Your task to perform on an android device: Add alienware aurora to the cart on amazon, then select checkout. Image 0: 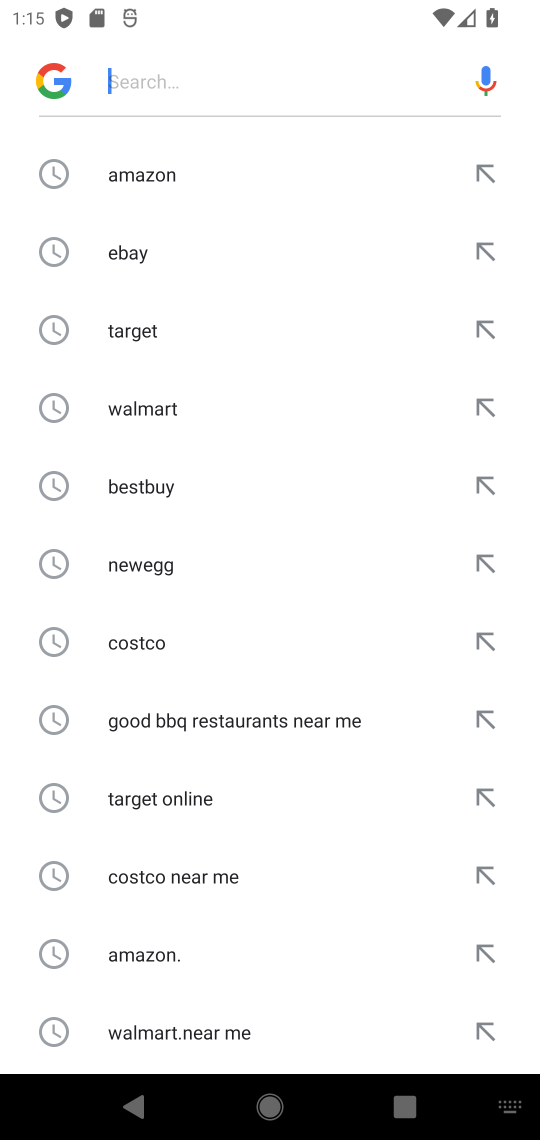
Step 0: click (125, 176)
Your task to perform on an android device: Add alienware aurora to the cart on amazon, then select checkout. Image 1: 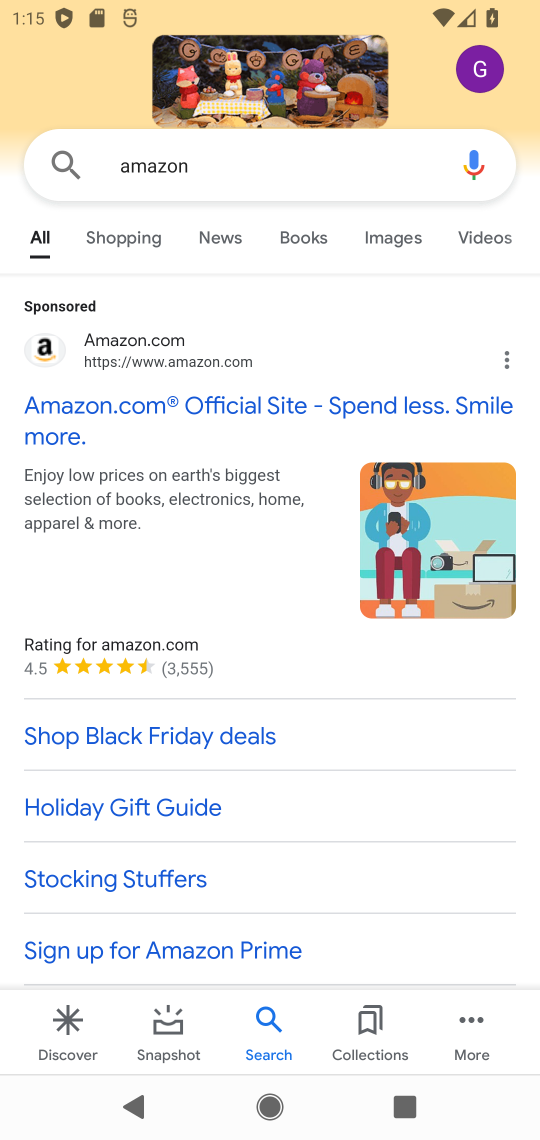
Step 1: drag from (110, 539) to (116, 288)
Your task to perform on an android device: Add alienware aurora to the cart on amazon, then select checkout. Image 2: 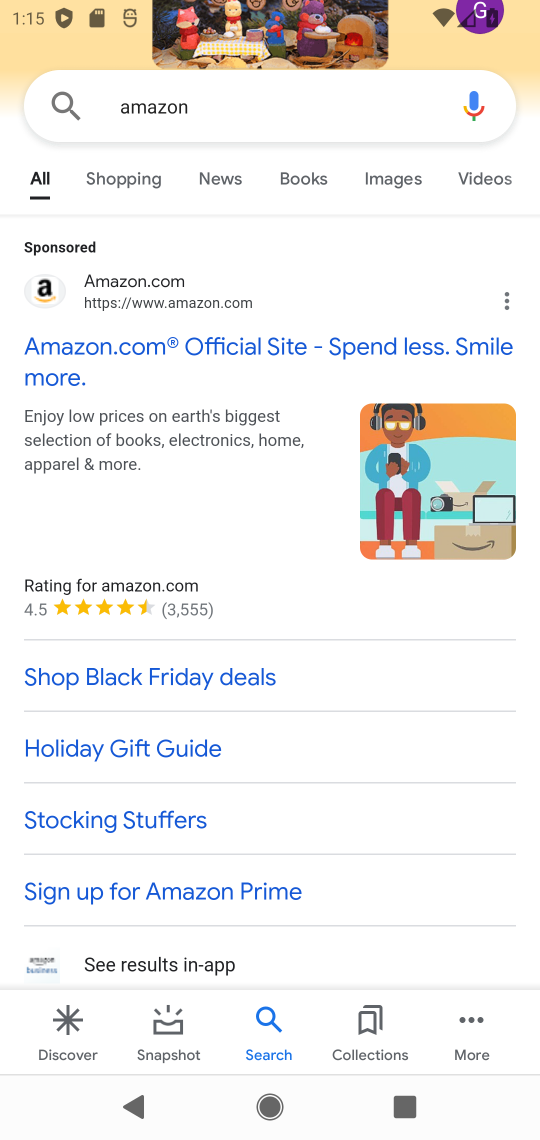
Step 2: drag from (119, 782) to (120, 465)
Your task to perform on an android device: Add alienware aurora to the cart on amazon, then select checkout. Image 3: 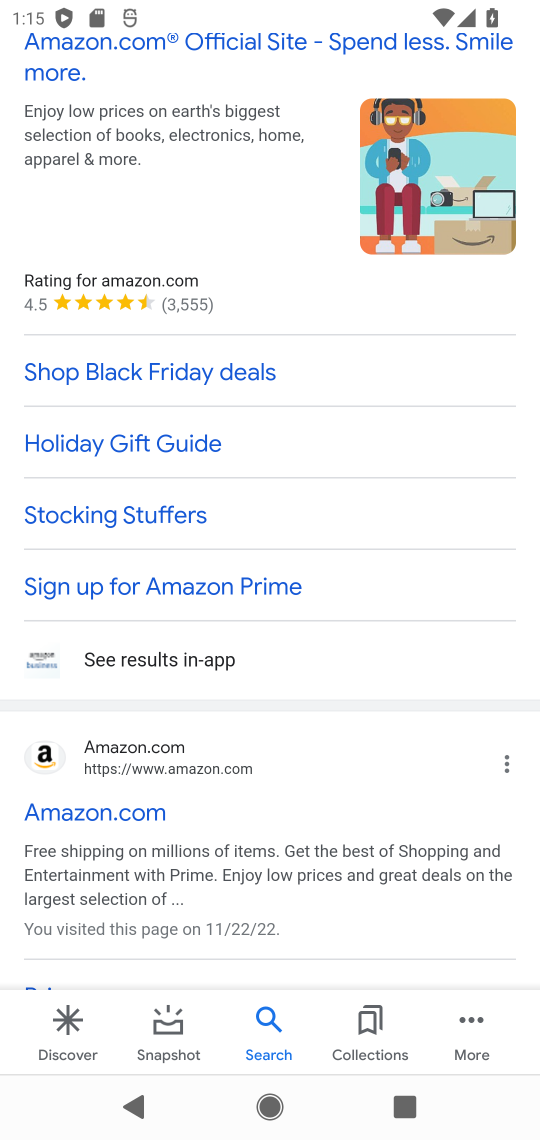
Step 3: click (55, 760)
Your task to perform on an android device: Add alienware aurora to the cart on amazon, then select checkout. Image 4: 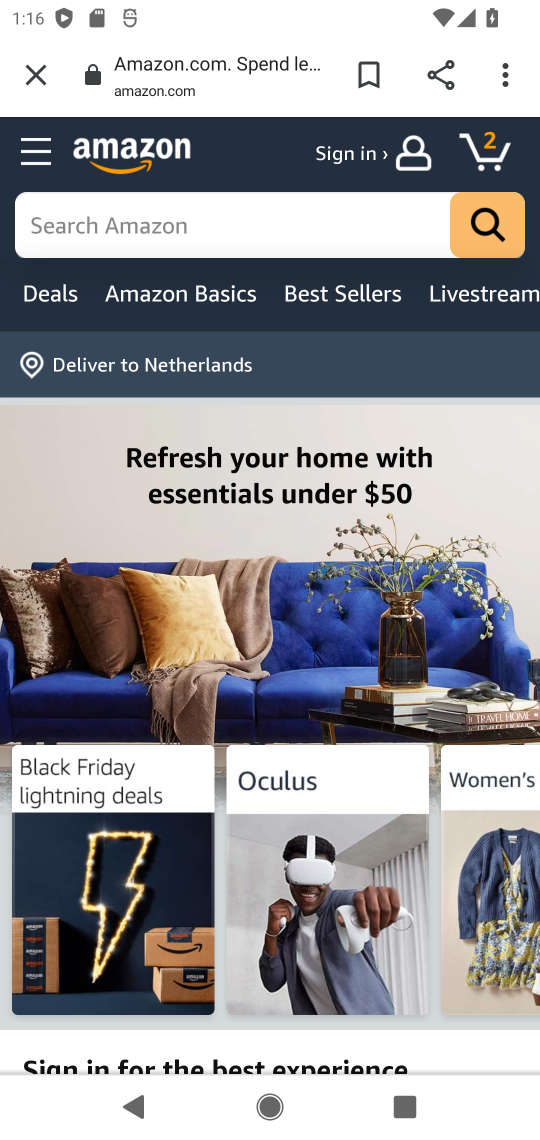
Step 4: click (141, 222)
Your task to perform on an android device: Add alienware aurora to the cart on amazon, then select checkout. Image 5: 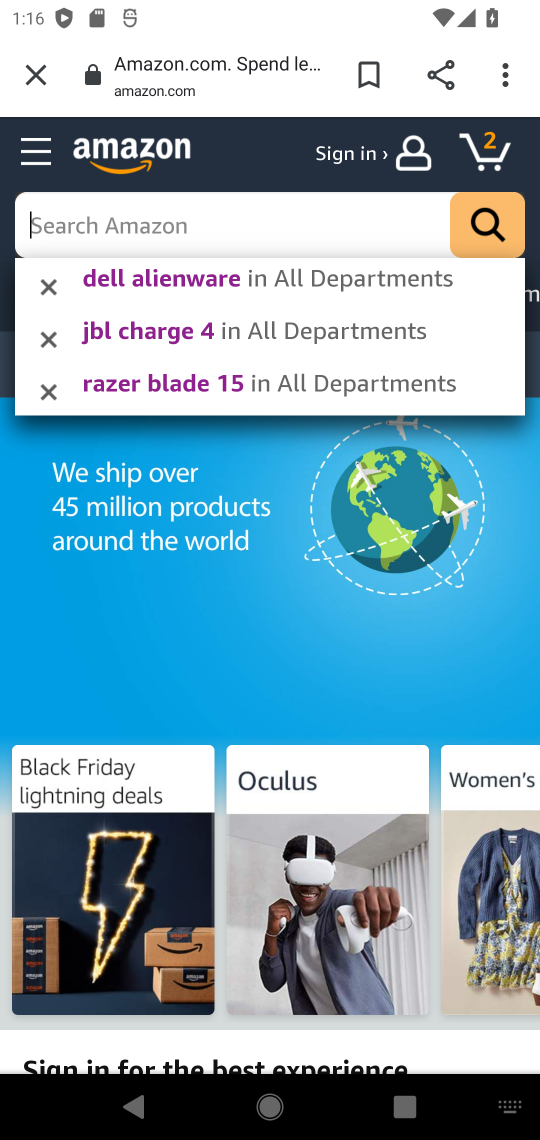
Step 5: type "alienware aurora"
Your task to perform on an android device: Add alienware aurora to the cart on amazon, then select checkout. Image 6: 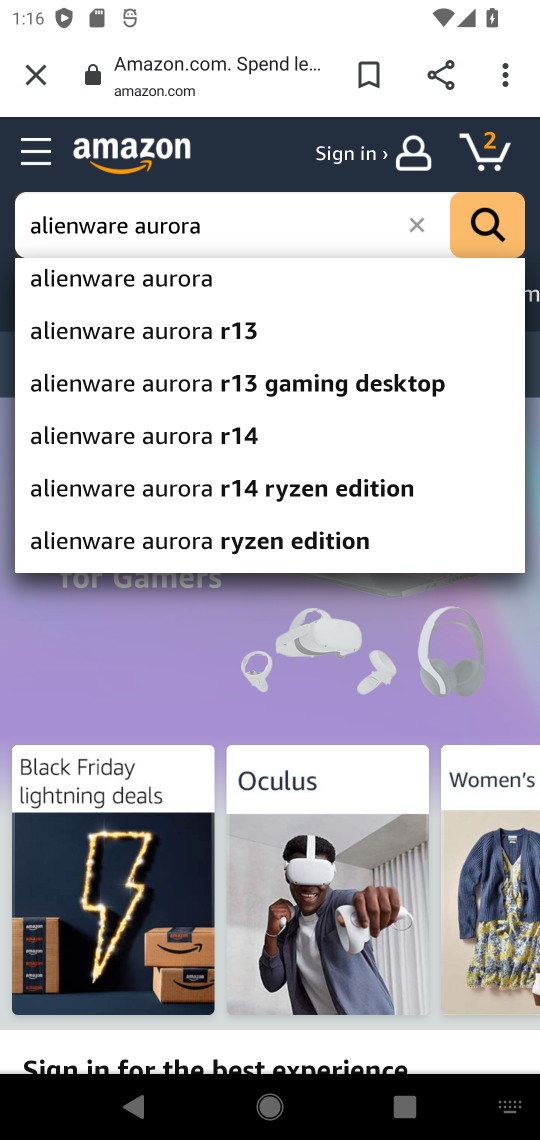
Step 6: click (166, 283)
Your task to perform on an android device: Add alienware aurora to the cart on amazon, then select checkout. Image 7: 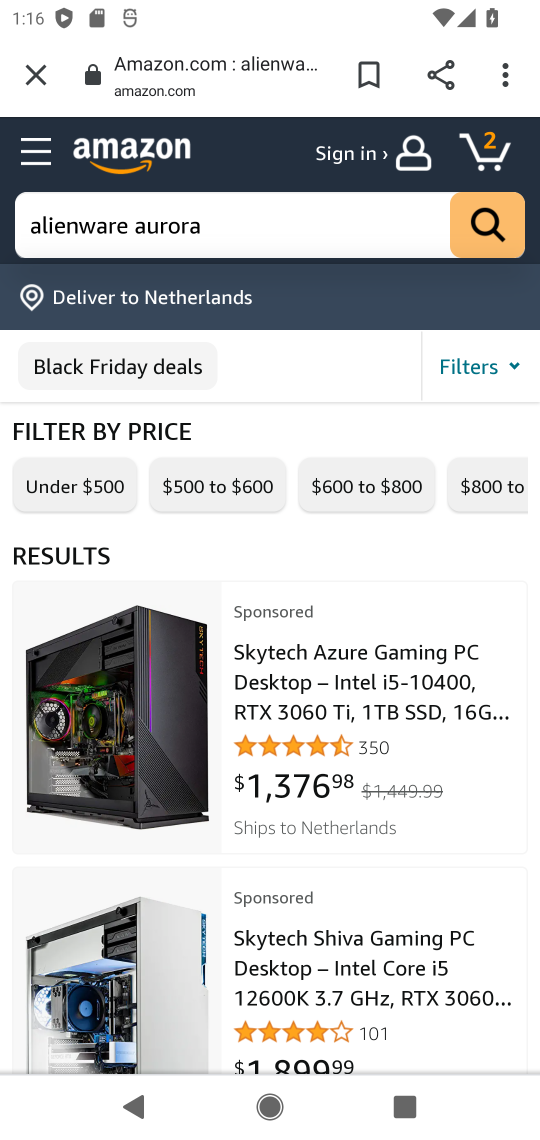
Step 7: drag from (192, 671) to (214, 432)
Your task to perform on an android device: Add alienware aurora to the cart on amazon, then select checkout. Image 8: 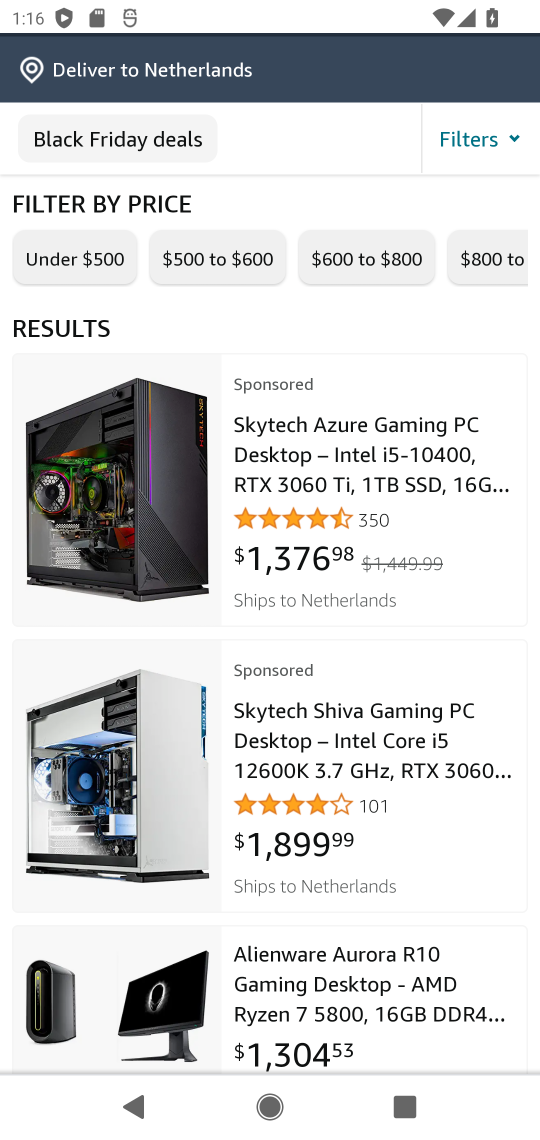
Step 8: drag from (160, 952) to (158, 724)
Your task to perform on an android device: Add alienware aurora to the cart on amazon, then select checkout. Image 9: 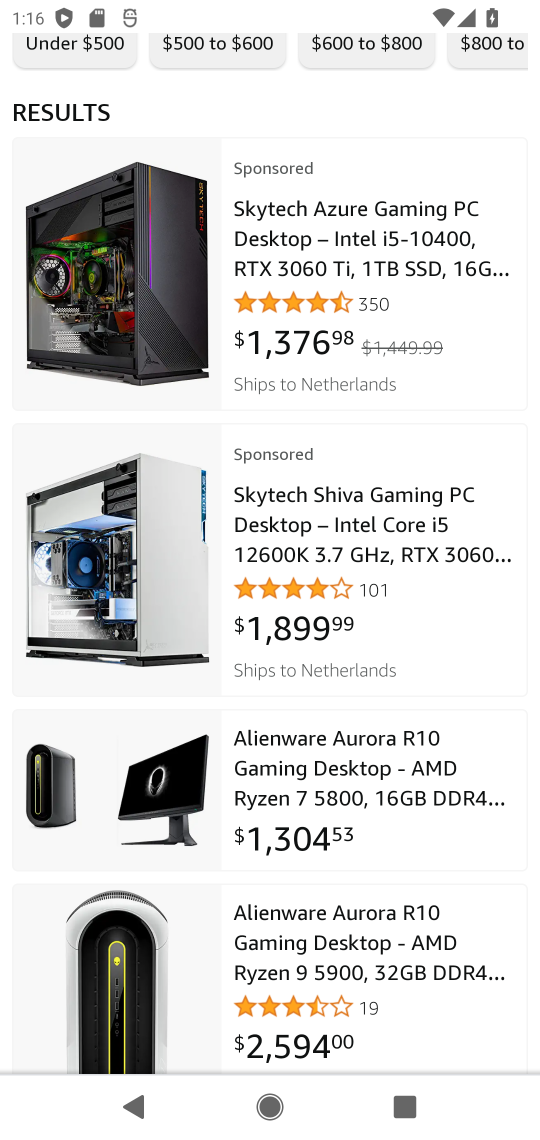
Step 9: click (129, 795)
Your task to perform on an android device: Add alienware aurora to the cart on amazon, then select checkout. Image 10: 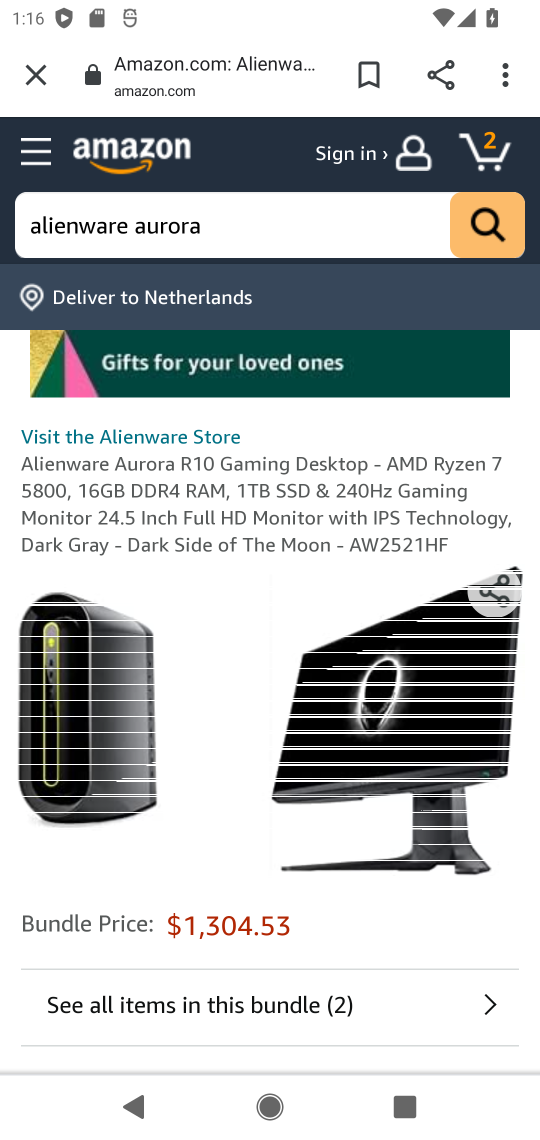
Step 10: drag from (265, 900) to (253, 525)
Your task to perform on an android device: Add alienware aurora to the cart on amazon, then select checkout. Image 11: 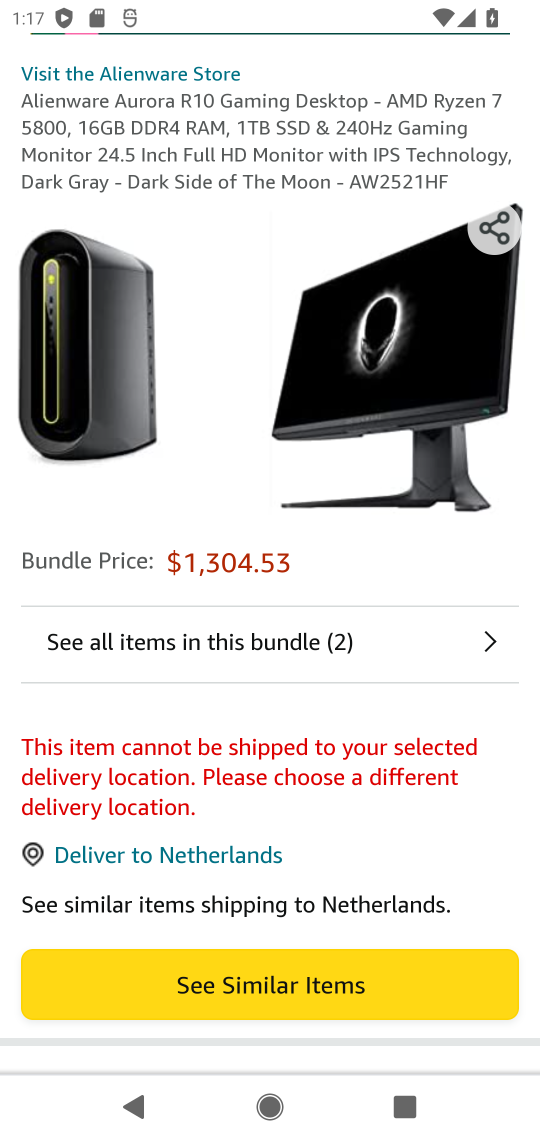
Step 11: drag from (239, 846) to (270, 652)
Your task to perform on an android device: Add alienware aurora to the cart on amazon, then select checkout. Image 12: 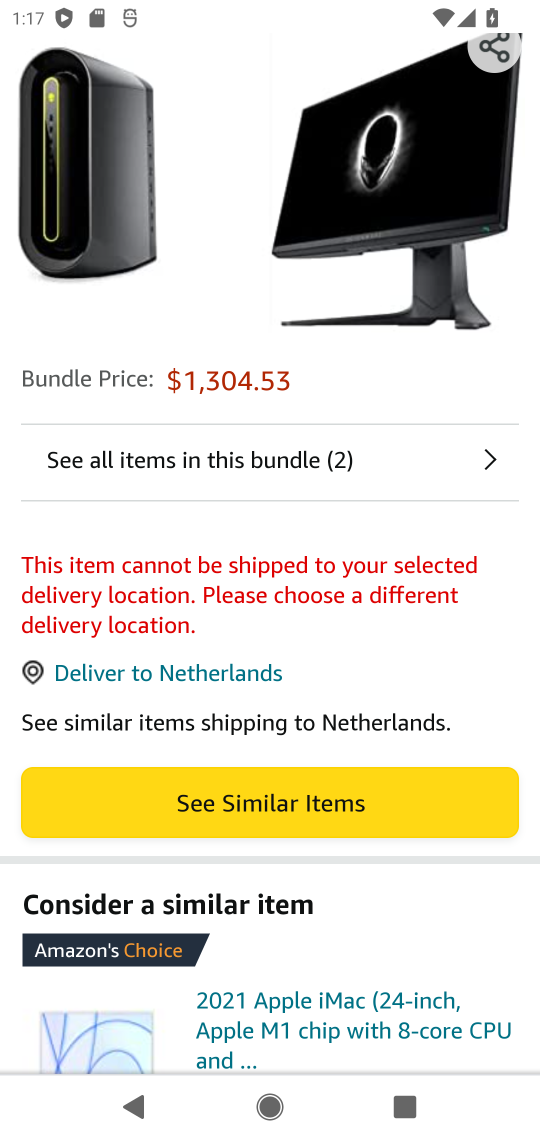
Step 12: press back button
Your task to perform on an android device: Add alienware aurora to the cart on amazon, then select checkout. Image 13: 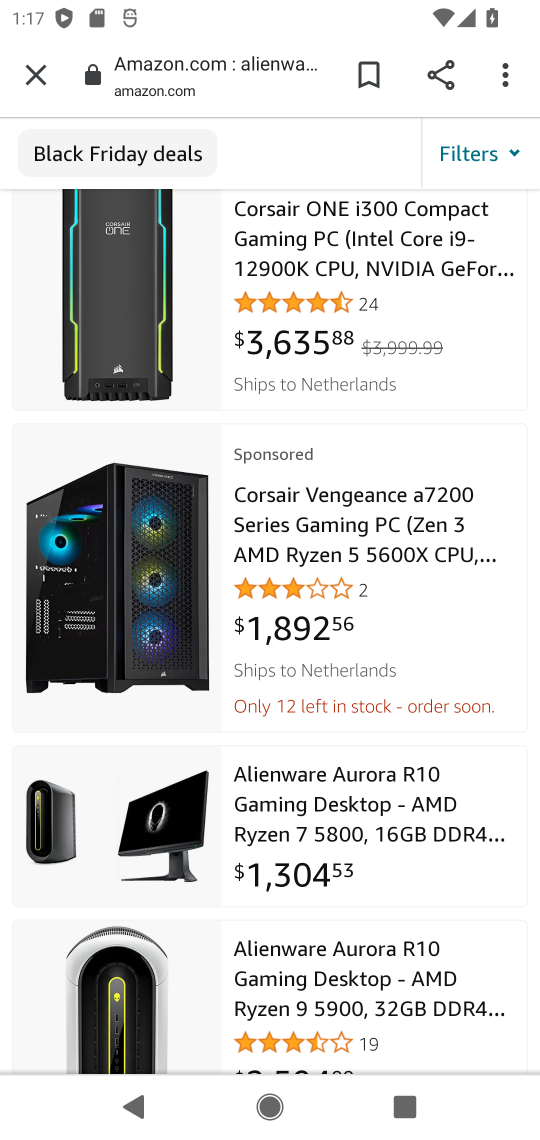
Step 13: drag from (197, 787) to (215, 497)
Your task to perform on an android device: Add alienware aurora to the cart on amazon, then select checkout. Image 14: 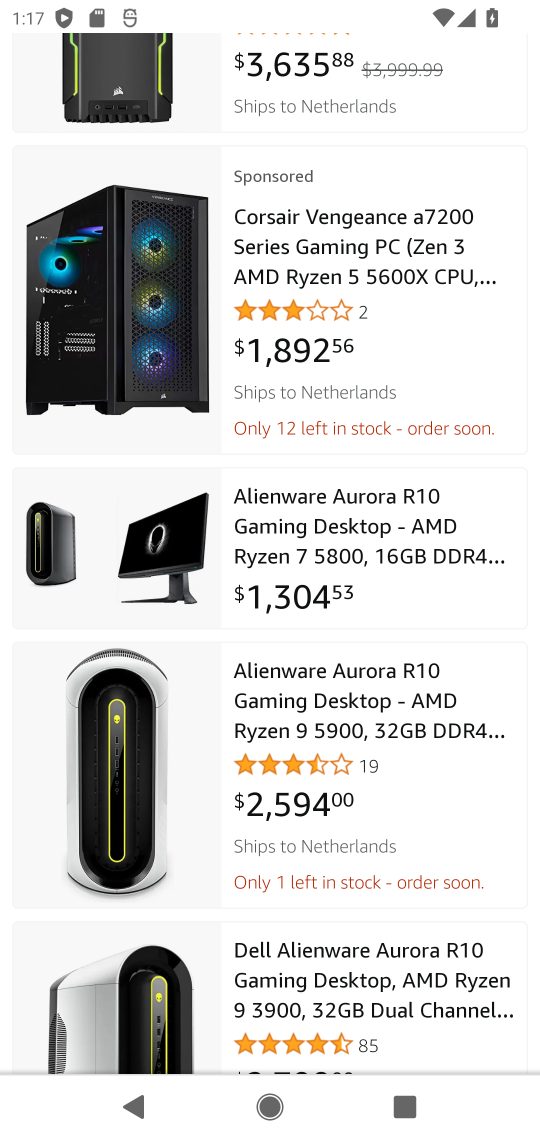
Step 14: click (134, 782)
Your task to perform on an android device: Add alienware aurora to the cart on amazon, then select checkout. Image 15: 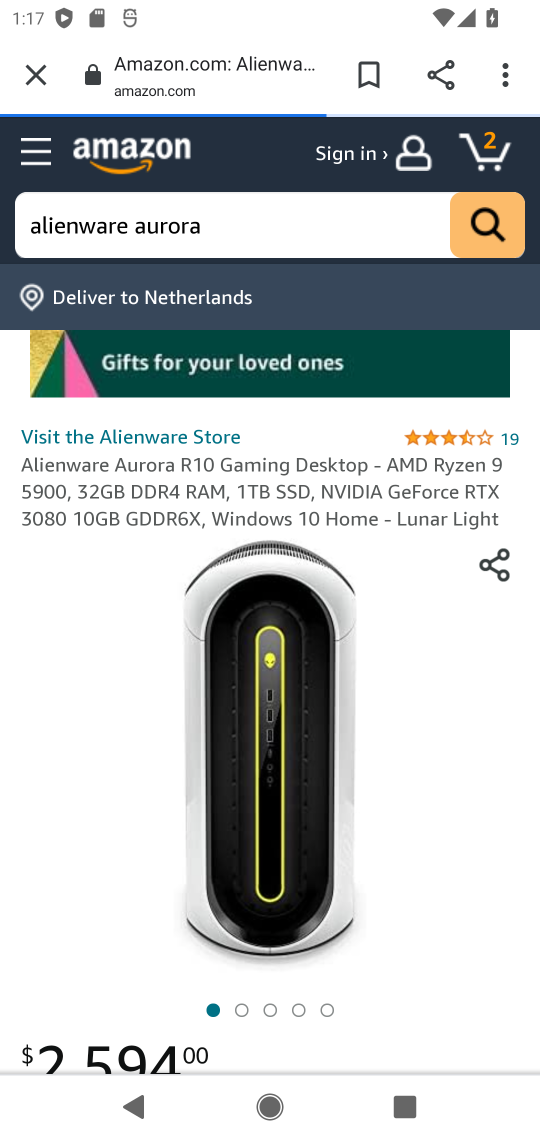
Step 15: drag from (160, 823) to (167, 295)
Your task to perform on an android device: Add alienware aurora to the cart on amazon, then select checkout. Image 16: 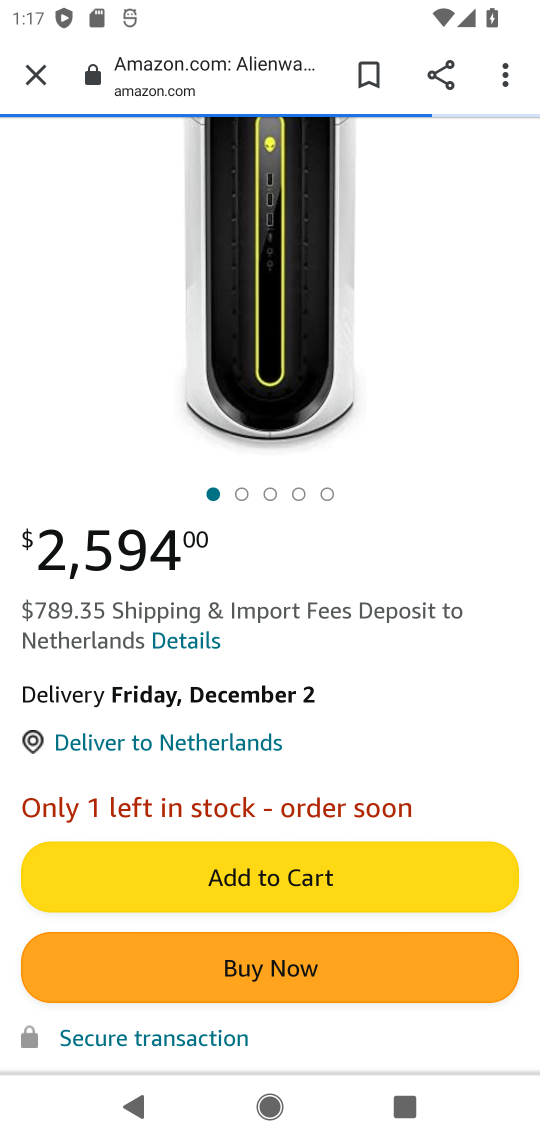
Step 16: click (196, 862)
Your task to perform on an android device: Add alienware aurora to the cart on amazon, then select checkout. Image 17: 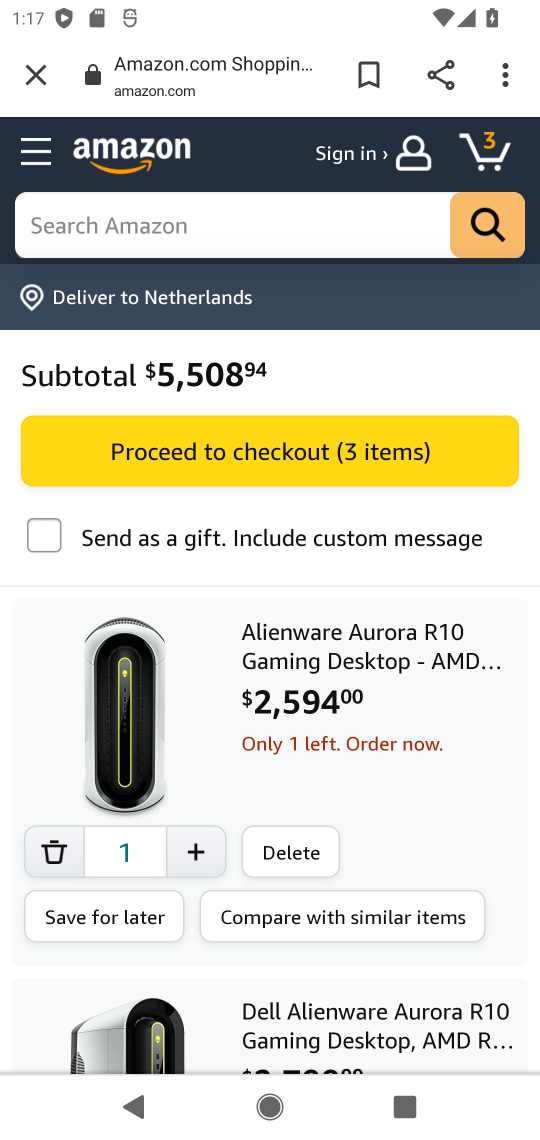
Step 17: click (256, 453)
Your task to perform on an android device: Add alienware aurora to the cart on amazon, then select checkout. Image 18: 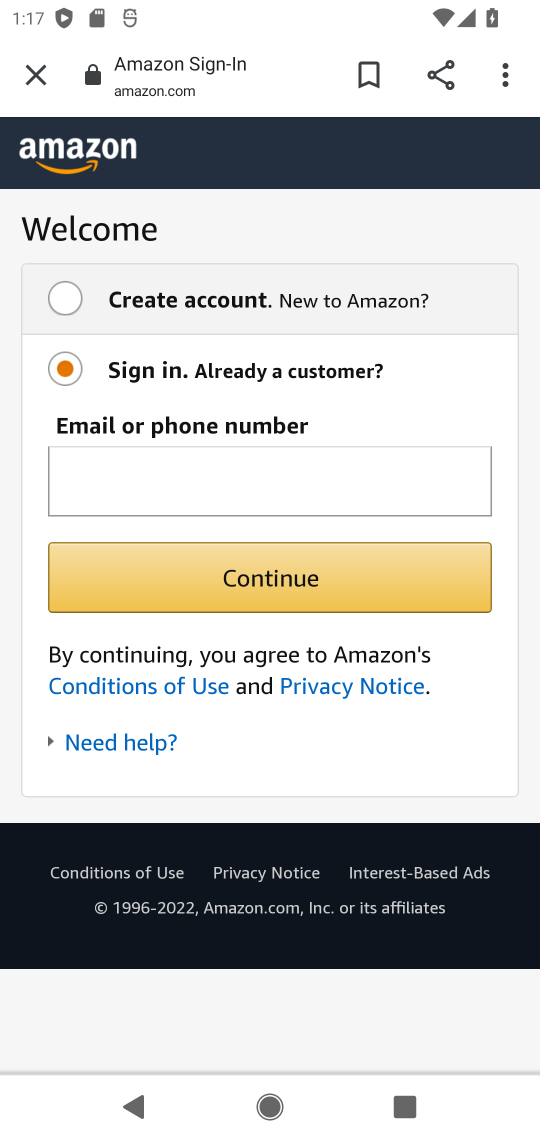
Step 18: task complete